Your task to perform on an android device: open app "Truecaller" Image 0: 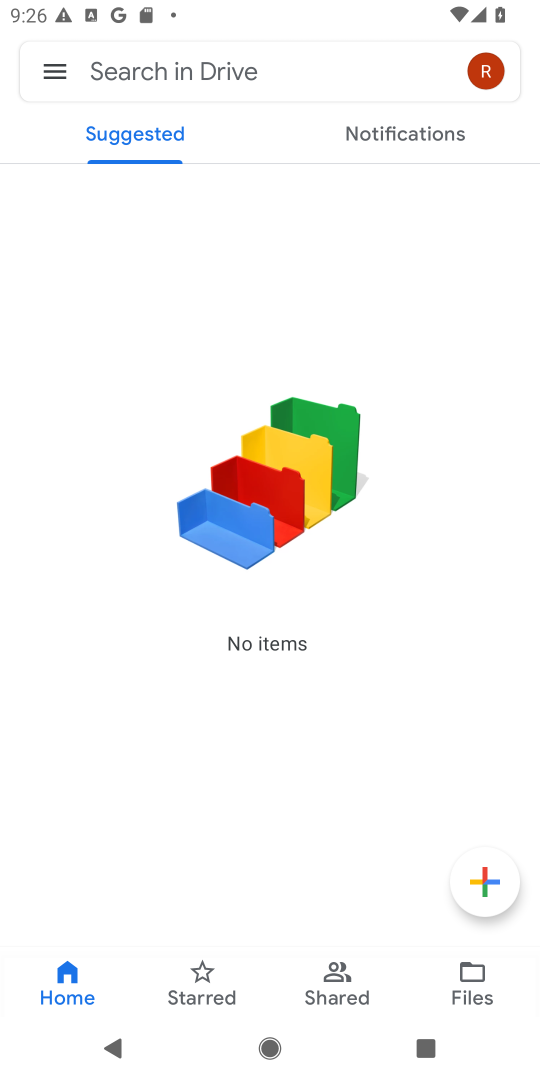
Step 0: press back button
Your task to perform on an android device: open app "Truecaller" Image 1: 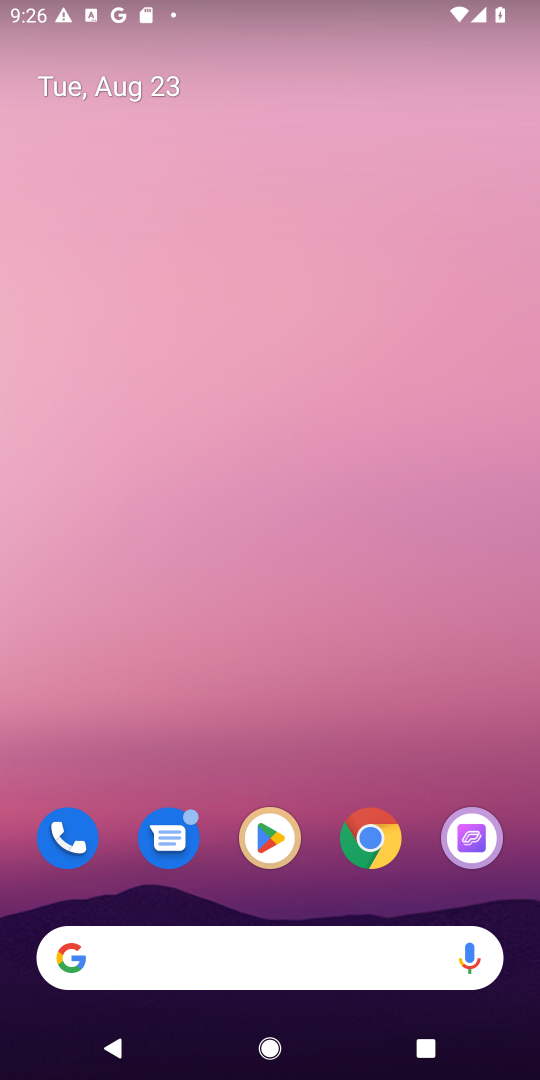
Step 1: click (271, 849)
Your task to perform on an android device: open app "Truecaller" Image 2: 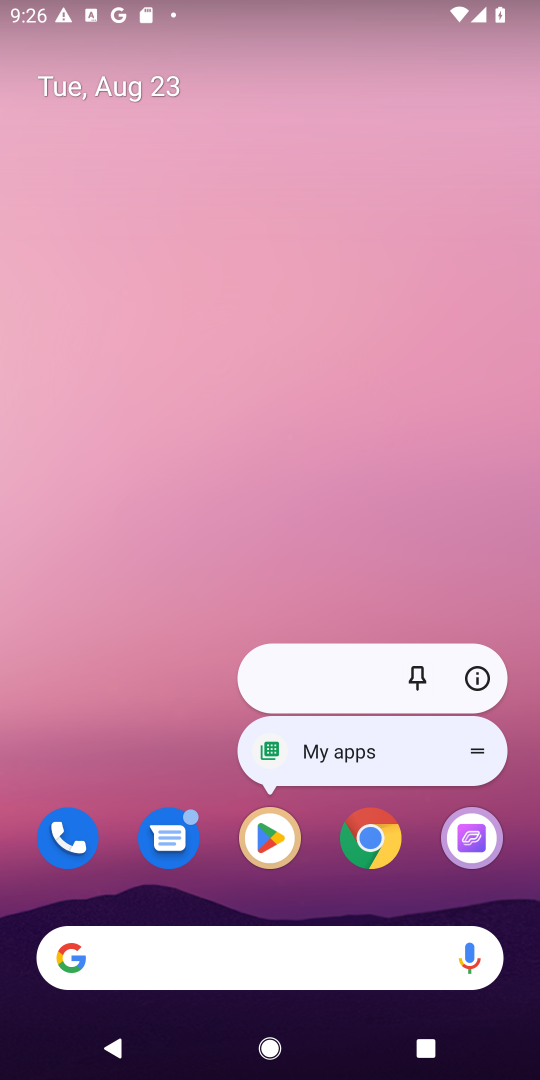
Step 2: click (269, 860)
Your task to perform on an android device: open app "Truecaller" Image 3: 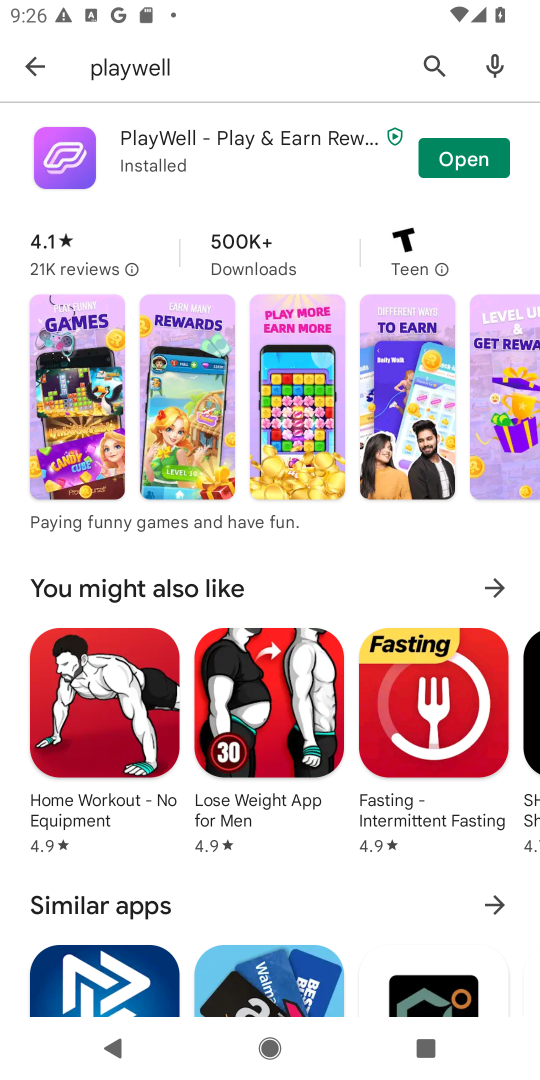
Step 3: click (462, 56)
Your task to perform on an android device: open app "Truecaller" Image 4: 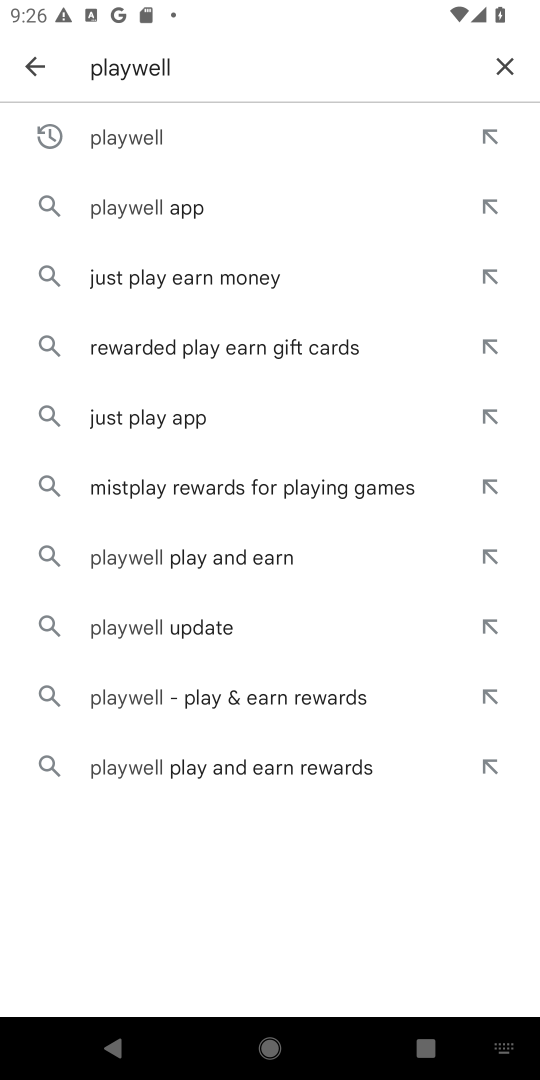
Step 4: click (498, 51)
Your task to perform on an android device: open app "Truecaller" Image 5: 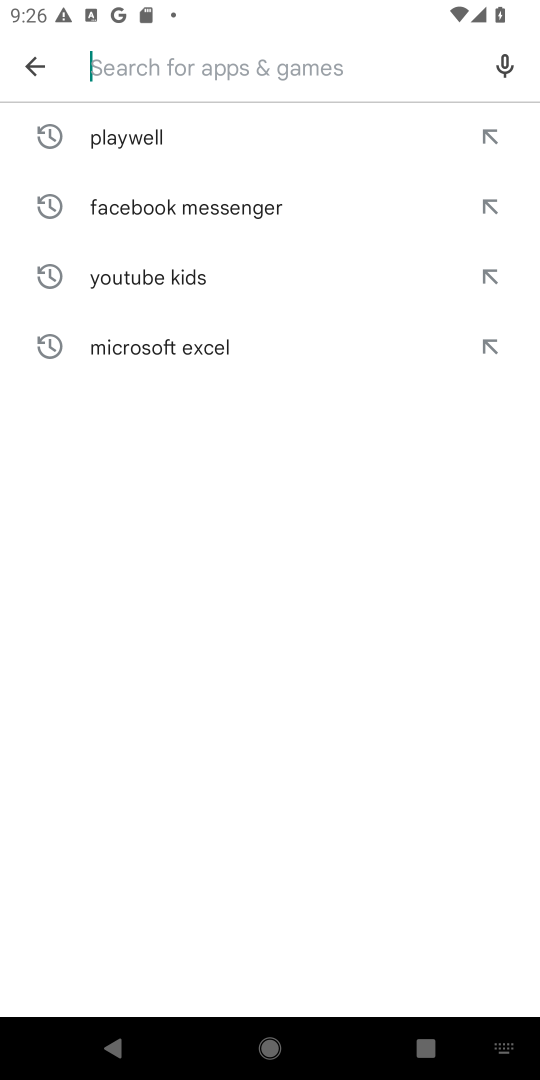
Step 5: type "Truecaller"
Your task to perform on an android device: open app "Truecaller" Image 6: 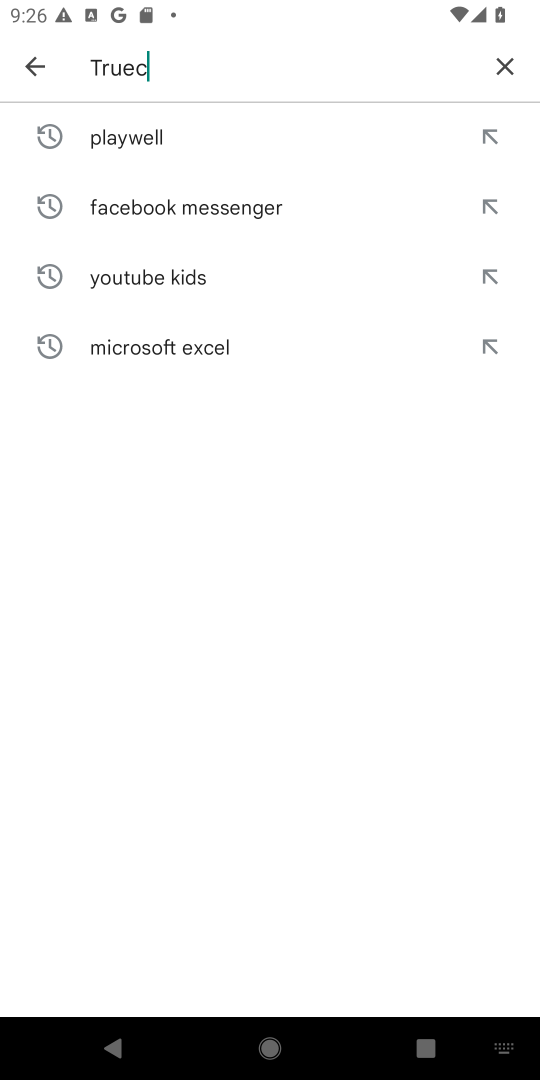
Step 6: type ""
Your task to perform on an android device: open app "Truecaller" Image 7: 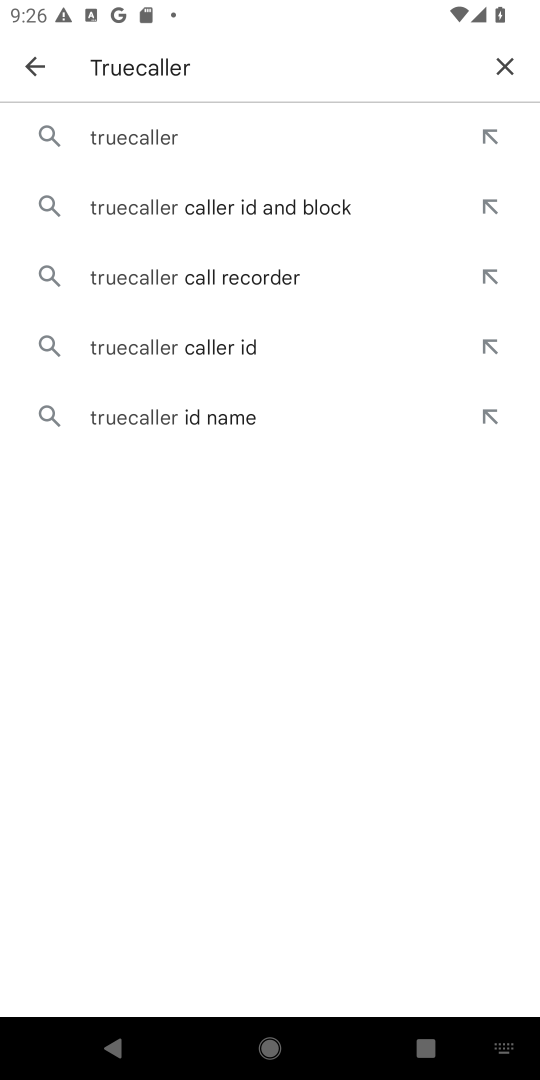
Step 7: click (215, 121)
Your task to perform on an android device: open app "Truecaller" Image 8: 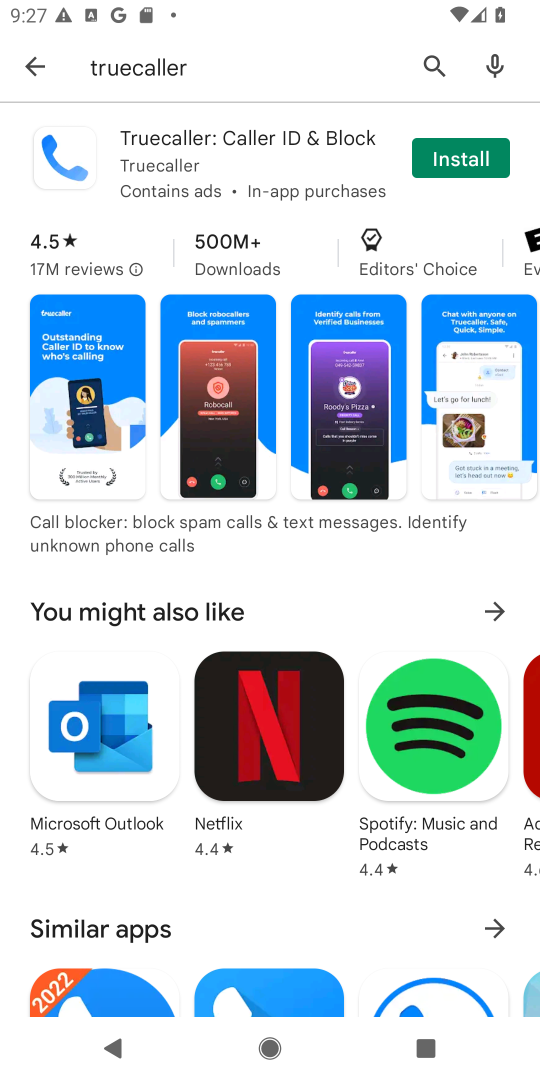
Step 8: task complete